Your task to perform on an android device: Open my contact list Image 0: 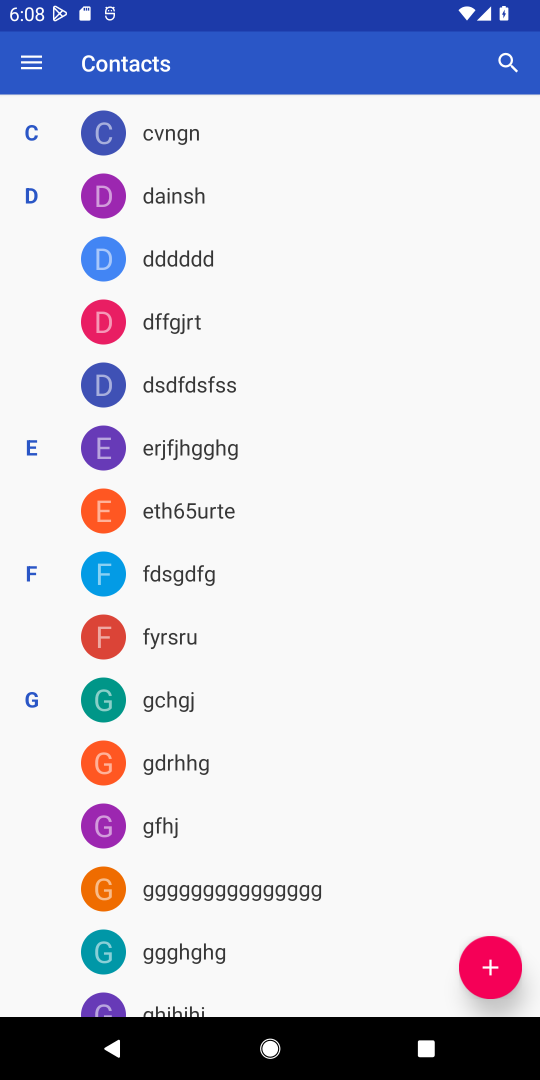
Step 0: press home button
Your task to perform on an android device: Open my contact list Image 1: 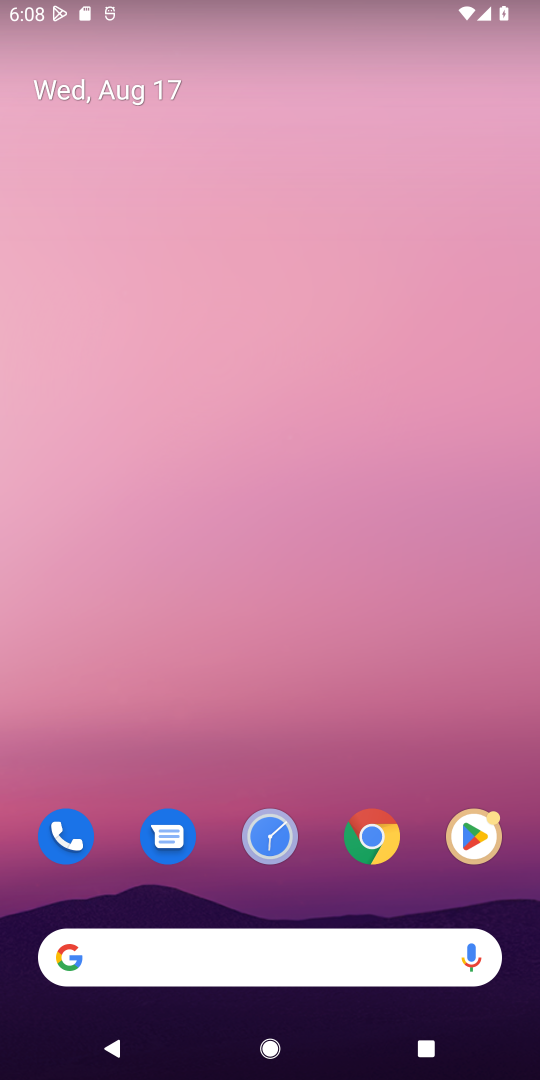
Step 1: drag from (322, 717) to (303, 269)
Your task to perform on an android device: Open my contact list Image 2: 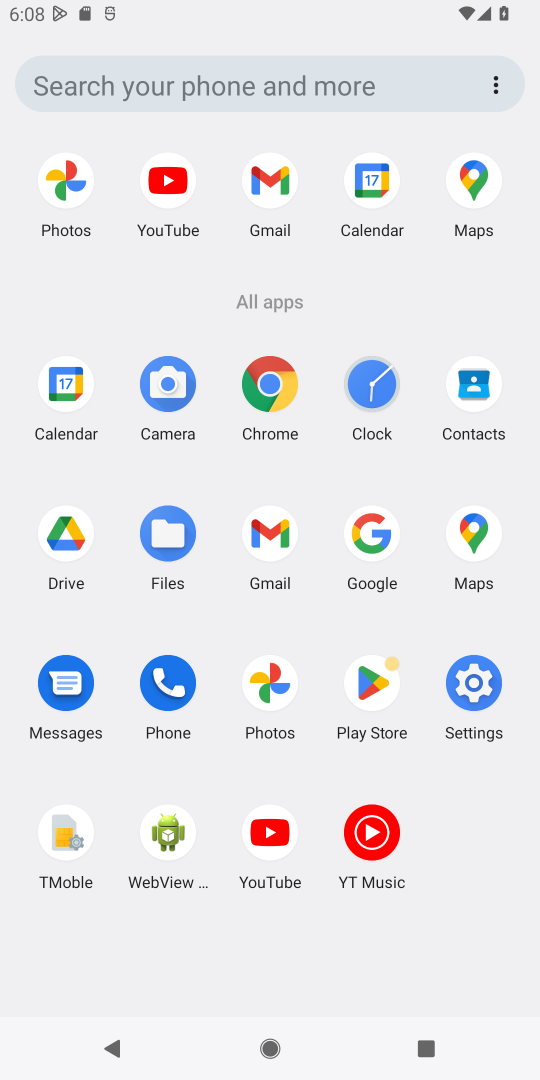
Step 2: click (473, 392)
Your task to perform on an android device: Open my contact list Image 3: 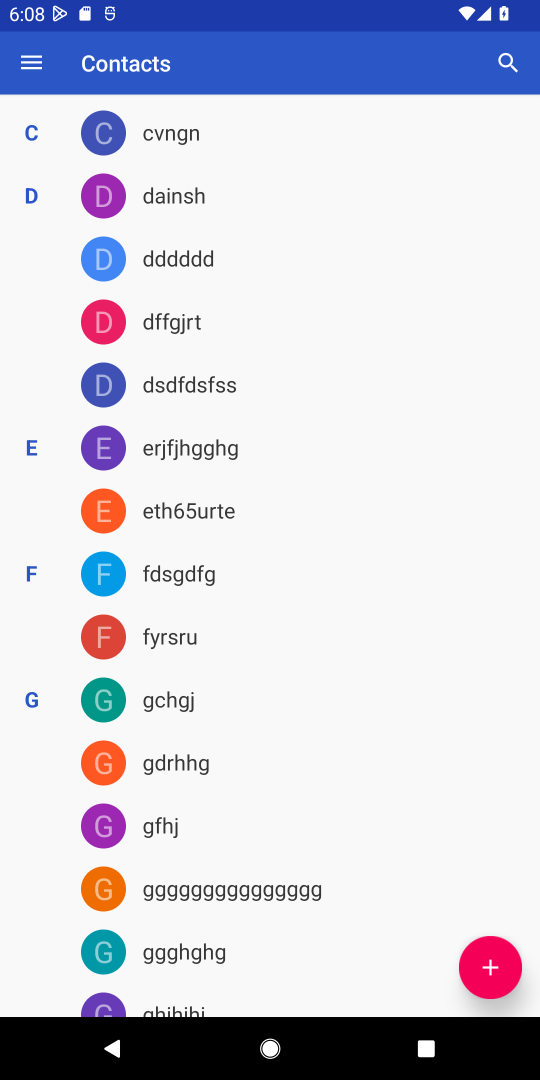
Step 3: press home button
Your task to perform on an android device: Open my contact list Image 4: 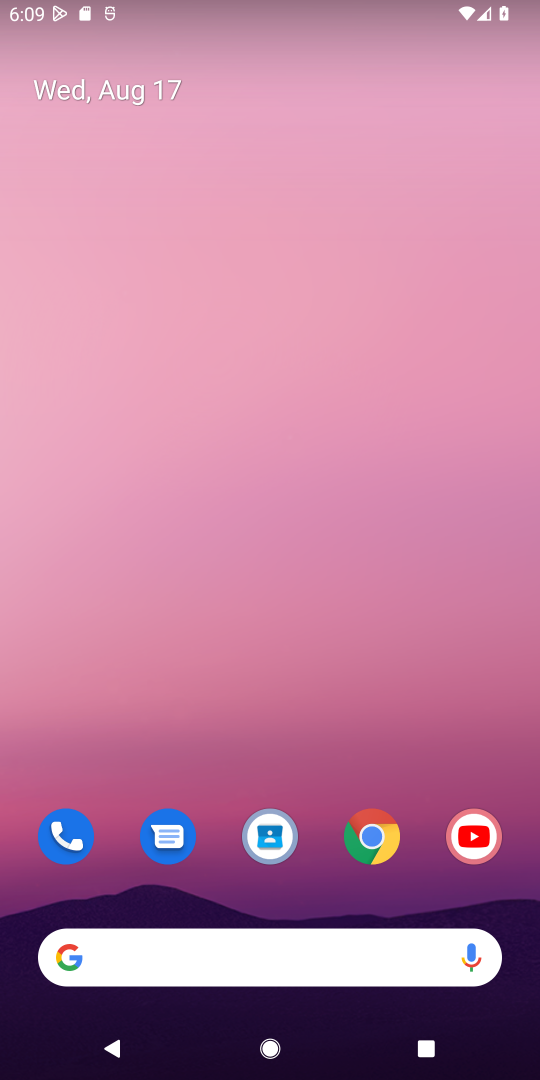
Step 4: drag from (270, 717) to (274, 32)
Your task to perform on an android device: Open my contact list Image 5: 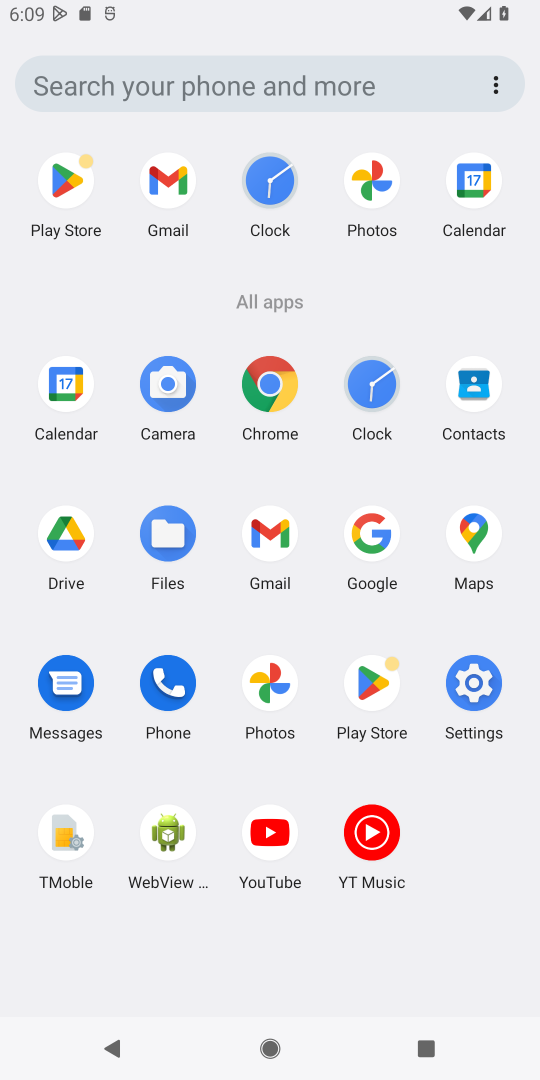
Step 5: click (472, 389)
Your task to perform on an android device: Open my contact list Image 6: 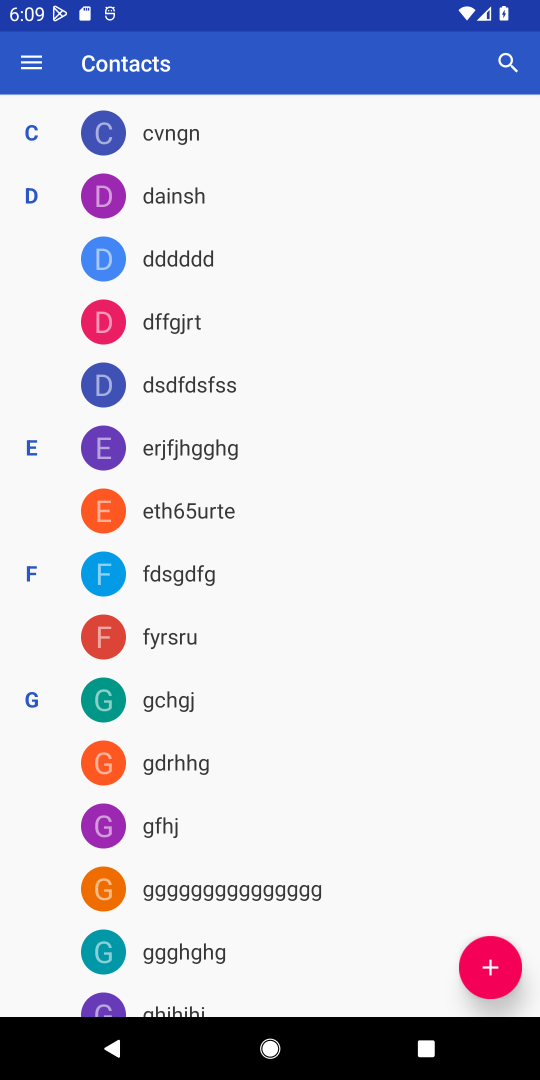
Step 6: task complete